Your task to perform on an android device: toggle data saver in the chrome app Image 0: 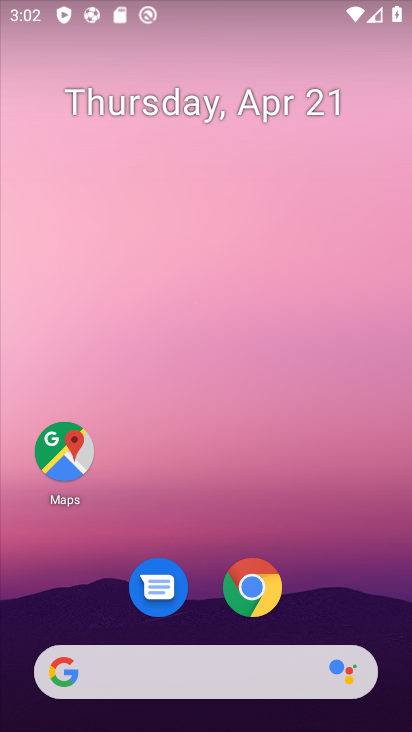
Step 0: click (265, 595)
Your task to perform on an android device: toggle data saver in the chrome app Image 1: 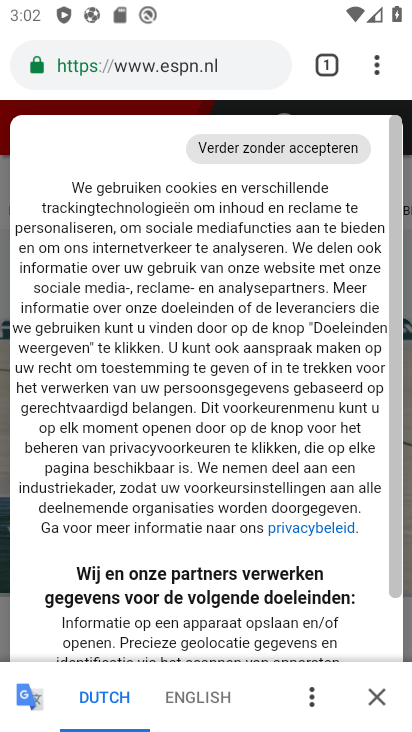
Step 1: drag from (373, 63) to (133, 636)
Your task to perform on an android device: toggle data saver in the chrome app Image 2: 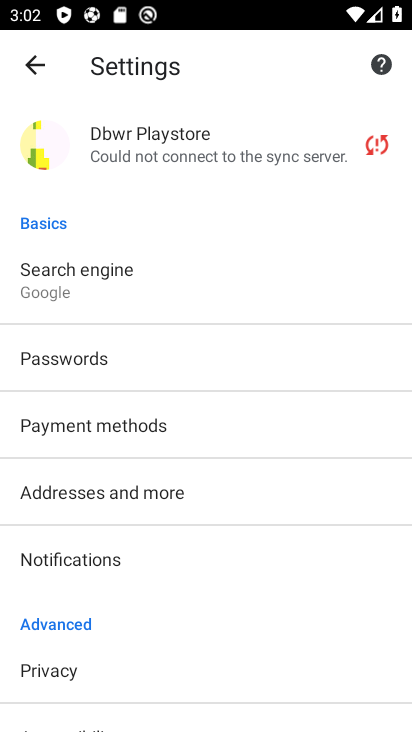
Step 2: drag from (76, 601) to (65, 231)
Your task to perform on an android device: toggle data saver in the chrome app Image 3: 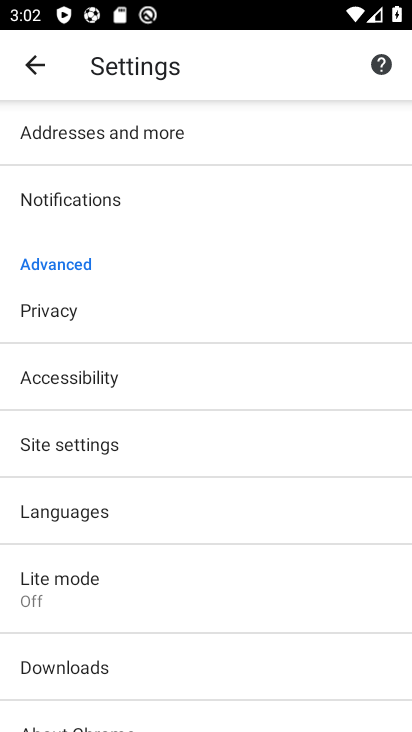
Step 3: click (68, 584)
Your task to perform on an android device: toggle data saver in the chrome app Image 4: 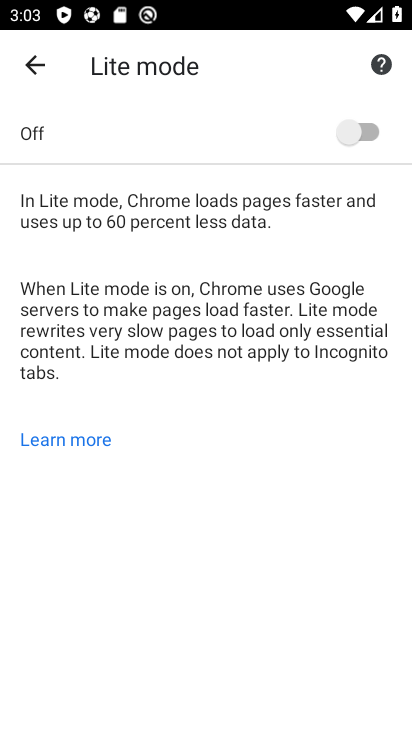
Step 4: click (362, 134)
Your task to perform on an android device: toggle data saver in the chrome app Image 5: 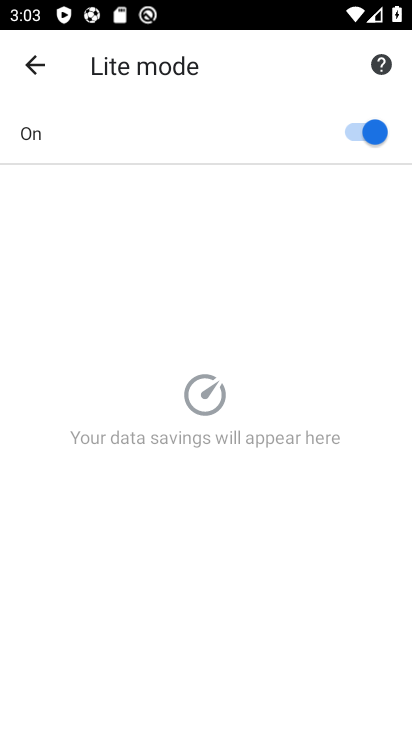
Step 5: task complete